Your task to perform on an android device: Set the phone to "Do not disturb". Image 0: 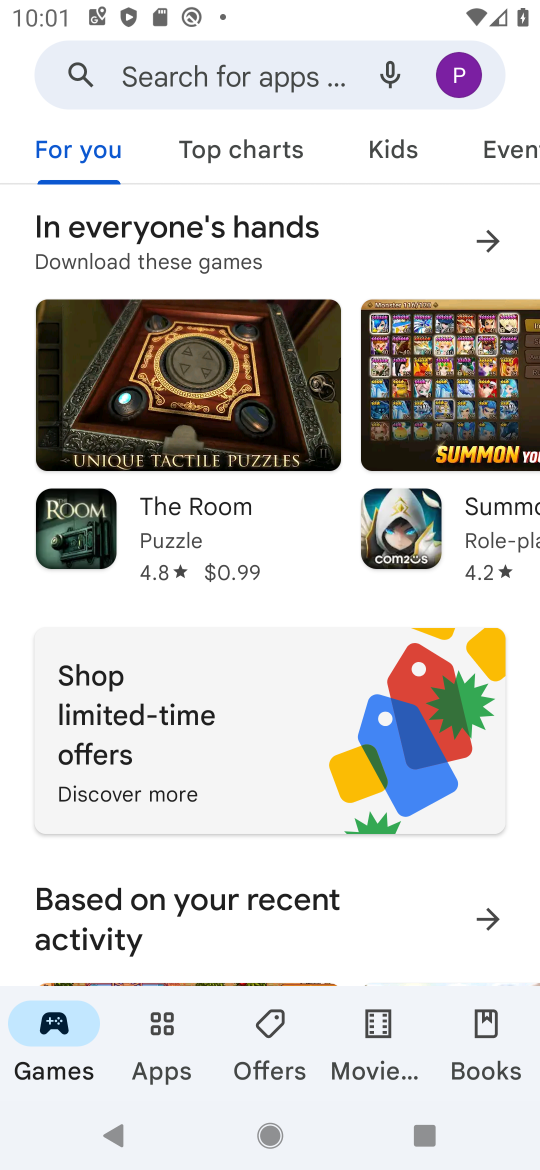
Step 0: press home button
Your task to perform on an android device: Set the phone to "Do not disturb". Image 1: 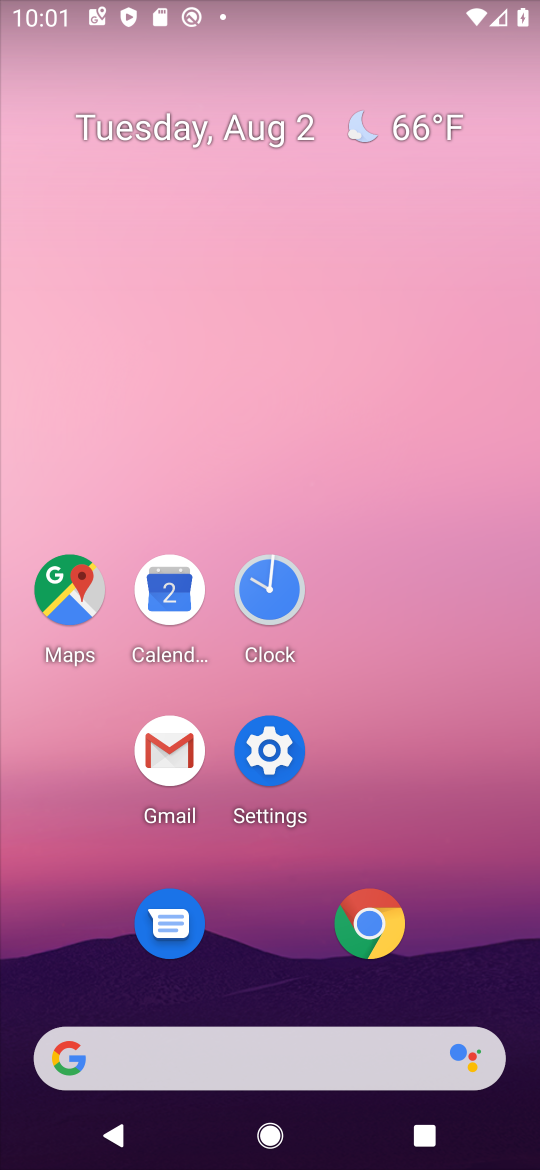
Step 1: click (258, 762)
Your task to perform on an android device: Set the phone to "Do not disturb". Image 2: 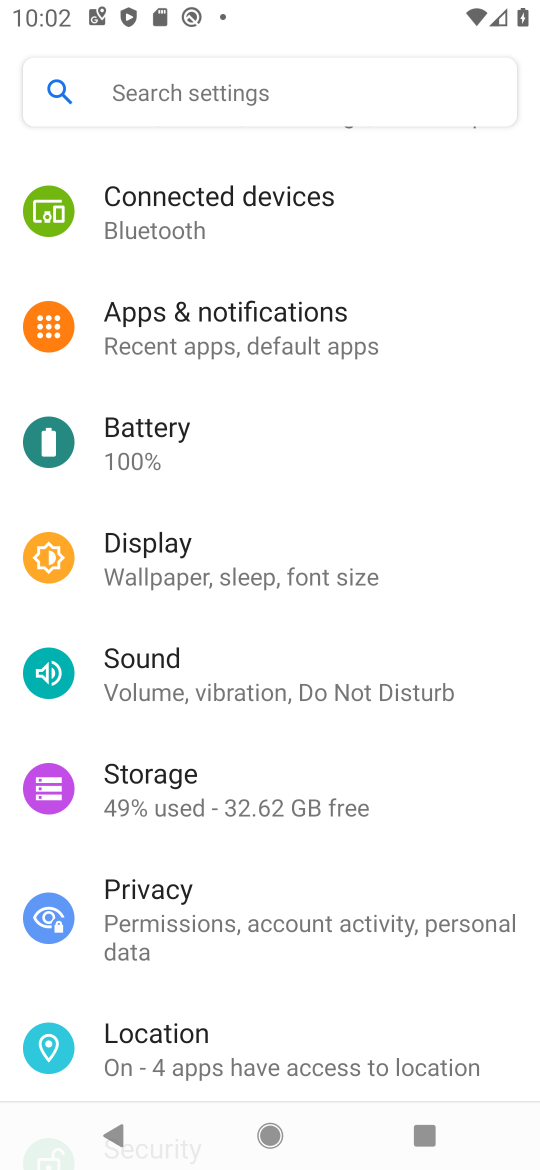
Step 2: click (176, 673)
Your task to perform on an android device: Set the phone to "Do not disturb". Image 3: 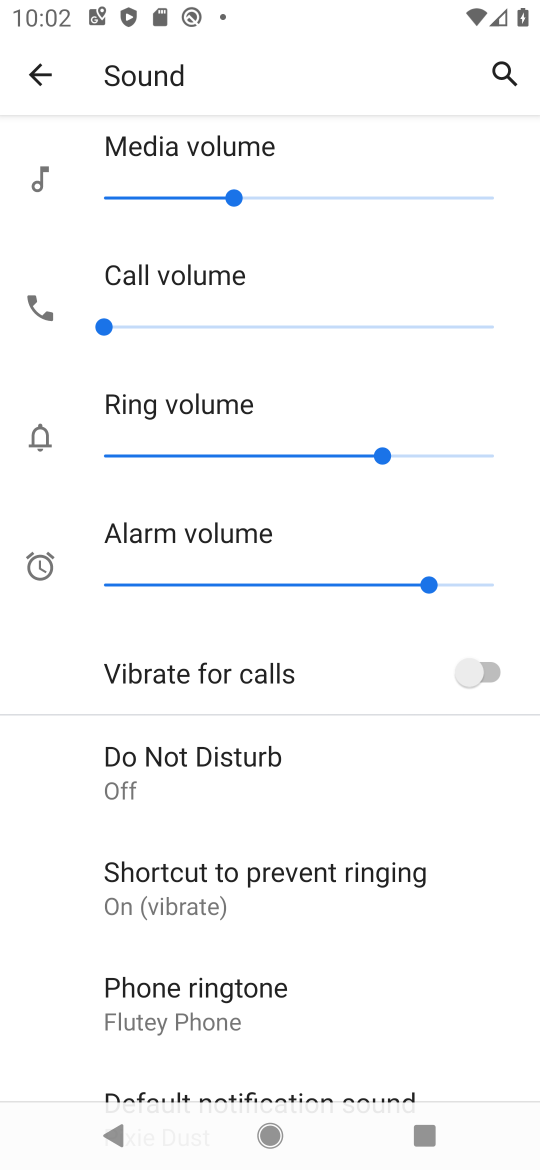
Step 3: click (166, 764)
Your task to perform on an android device: Set the phone to "Do not disturb". Image 4: 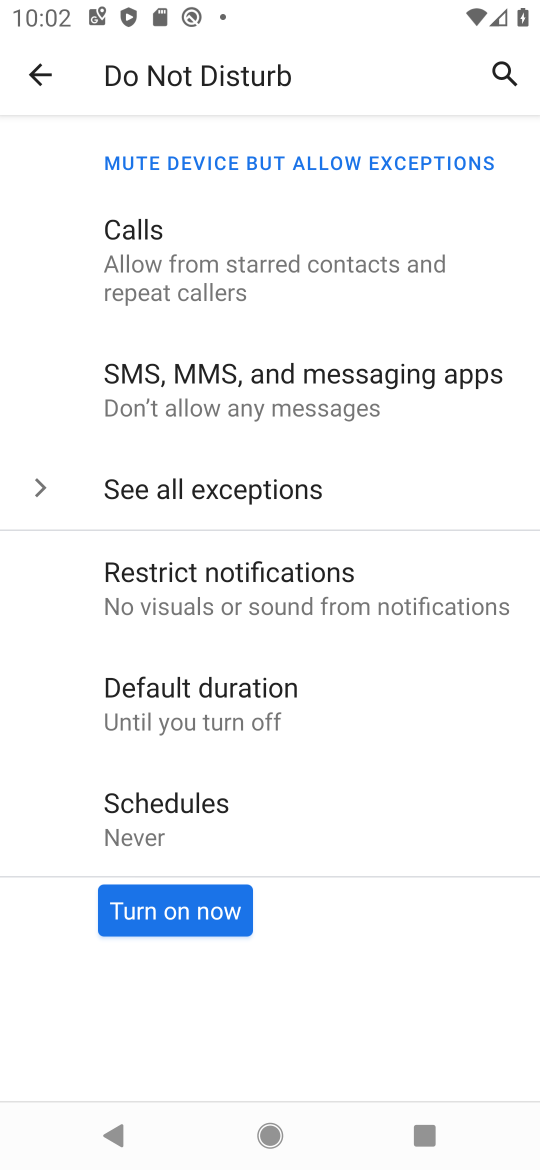
Step 4: click (173, 911)
Your task to perform on an android device: Set the phone to "Do not disturb". Image 5: 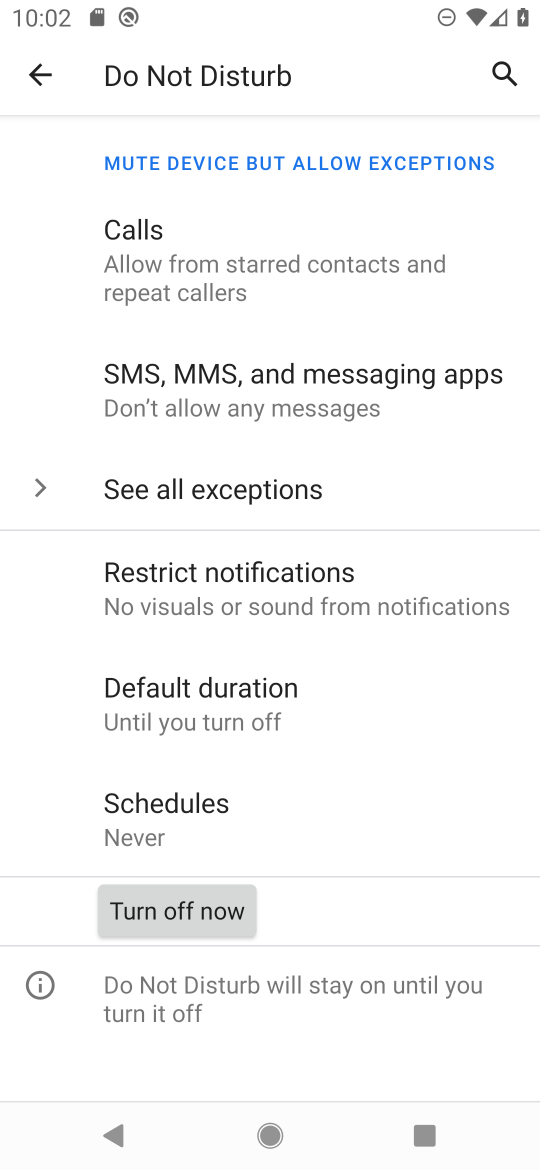
Step 5: task complete